Your task to perform on an android device: turn notification dots on Image 0: 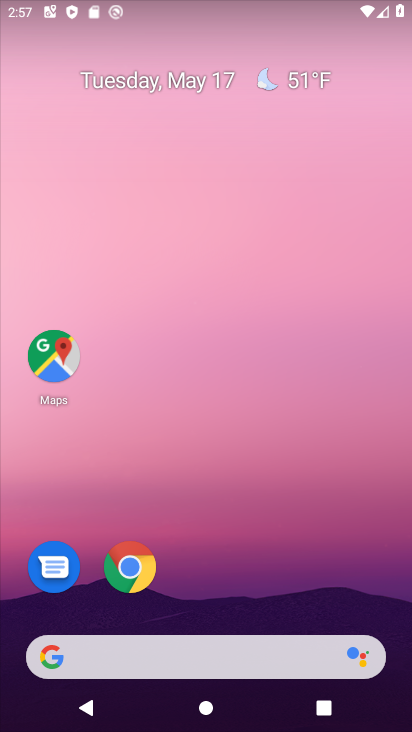
Step 0: drag from (220, 645) to (227, 23)
Your task to perform on an android device: turn notification dots on Image 1: 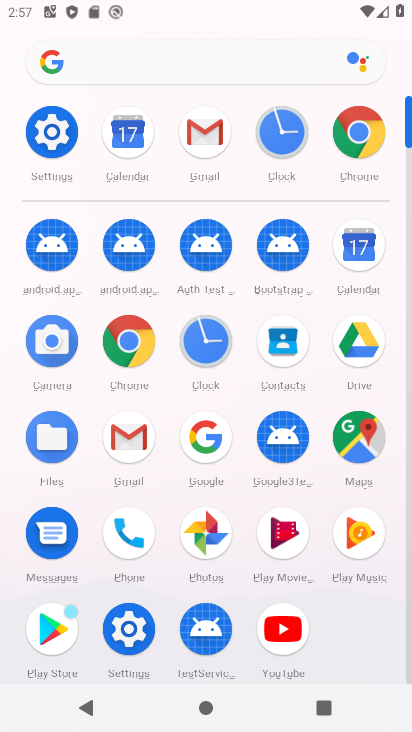
Step 1: click (55, 139)
Your task to perform on an android device: turn notification dots on Image 2: 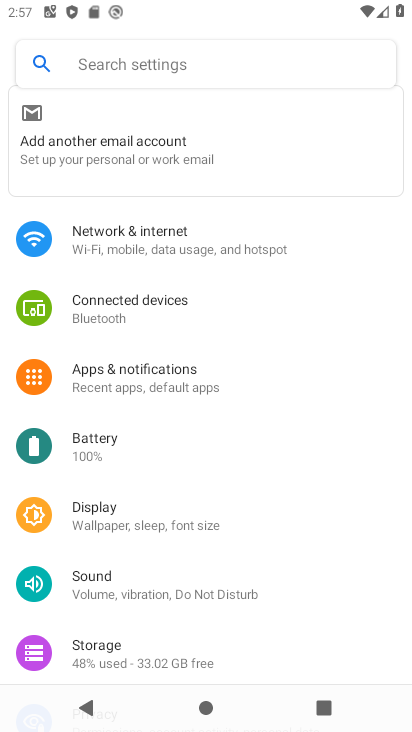
Step 2: click (106, 373)
Your task to perform on an android device: turn notification dots on Image 3: 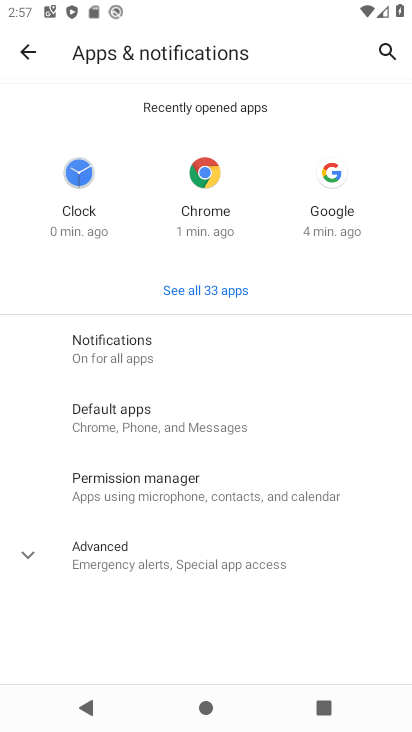
Step 3: click (149, 552)
Your task to perform on an android device: turn notification dots on Image 4: 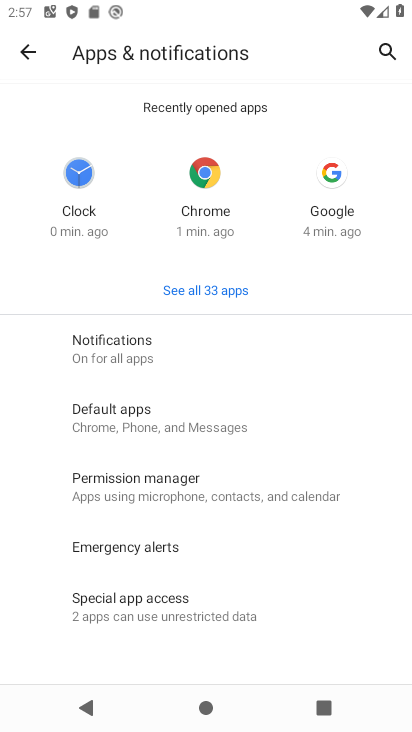
Step 4: click (141, 361)
Your task to perform on an android device: turn notification dots on Image 5: 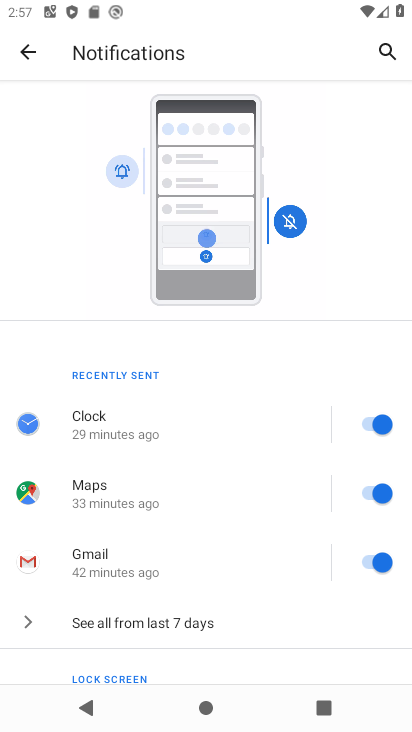
Step 5: drag from (170, 582) to (72, 8)
Your task to perform on an android device: turn notification dots on Image 6: 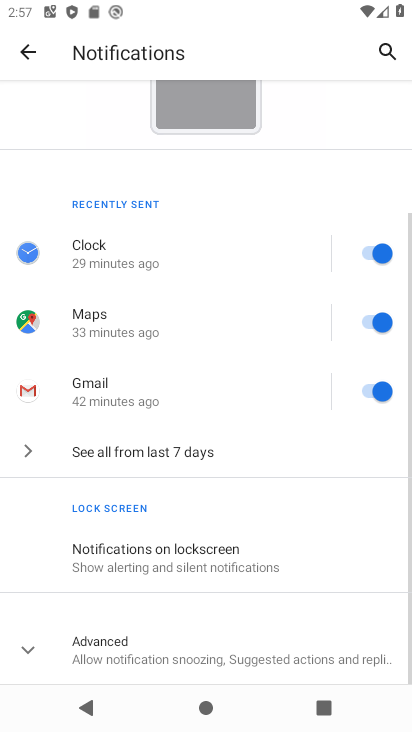
Step 6: click (105, 660)
Your task to perform on an android device: turn notification dots on Image 7: 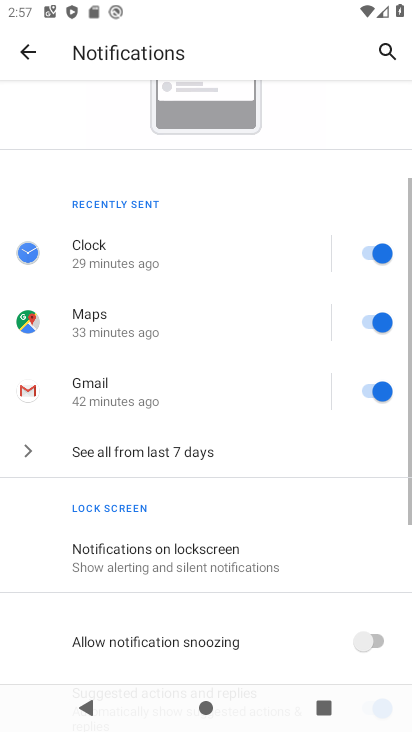
Step 7: task complete